Your task to perform on an android device: When is my next appointment? Image 0: 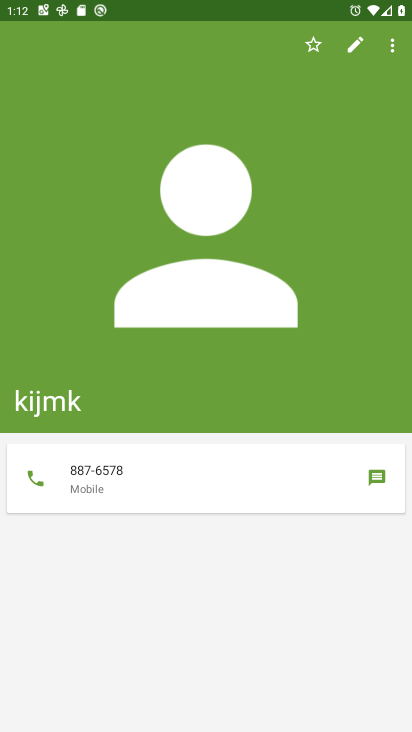
Step 0: drag from (158, 584) to (307, 140)
Your task to perform on an android device: When is my next appointment? Image 1: 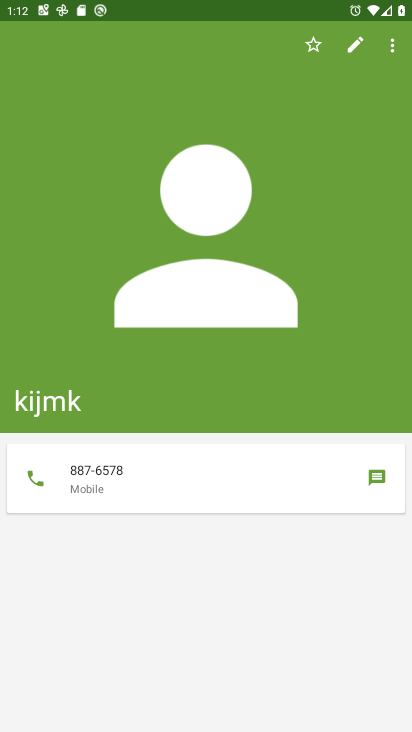
Step 1: press home button
Your task to perform on an android device: When is my next appointment? Image 2: 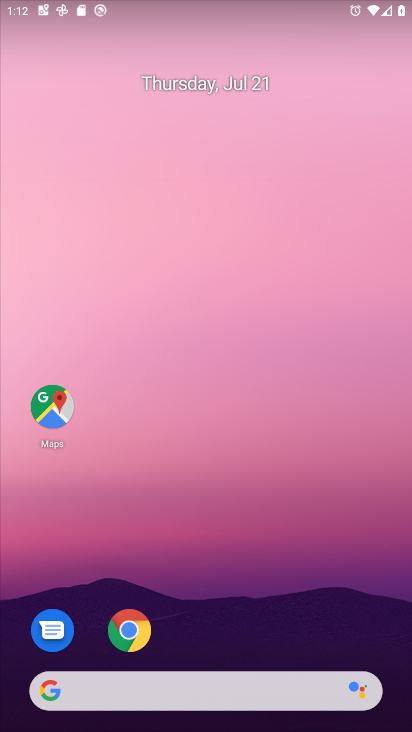
Step 2: drag from (190, 655) to (220, 58)
Your task to perform on an android device: When is my next appointment? Image 3: 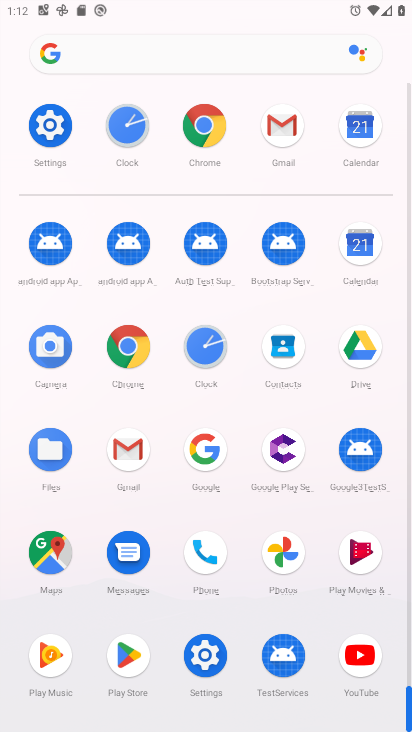
Step 3: click (357, 236)
Your task to perform on an android device: When is my next appointment? Image 4: 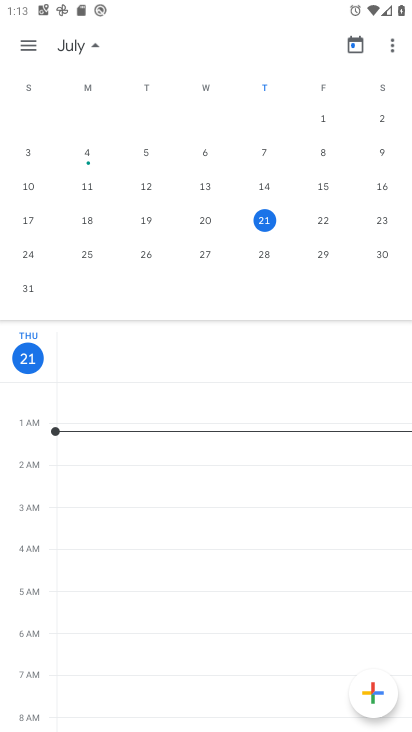
Step 4: click (360, 39)
Your task to perform on an android device: When is my next appointment? Image 5: 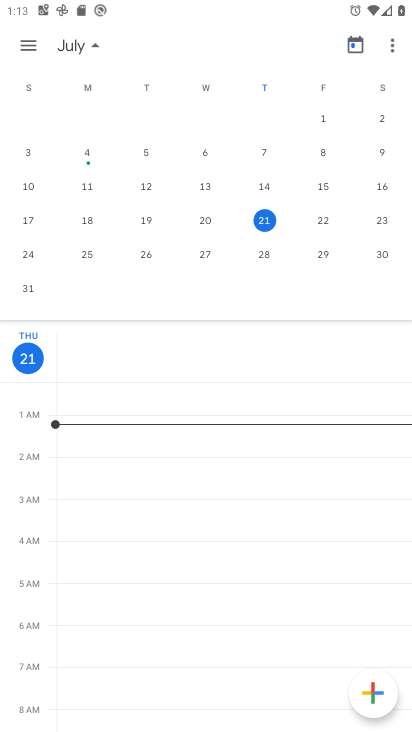
Step 5: click (265, 218)
Your task to perform on an android device: When is my next appointment? Image 6: 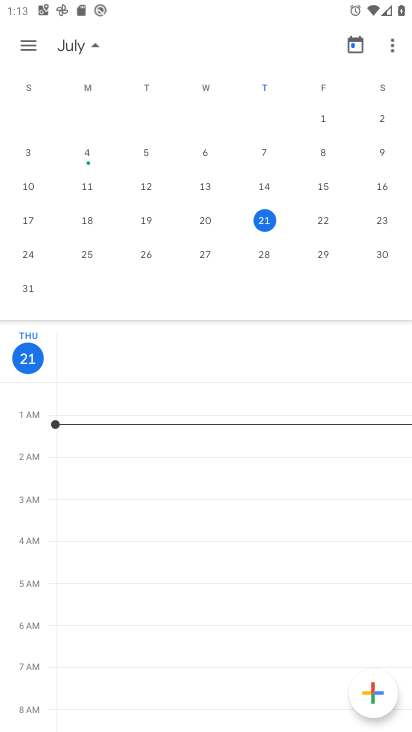
Step 6: task complete